Your task to perform on an android device: turn off smart reply in the gmail app Image 0: 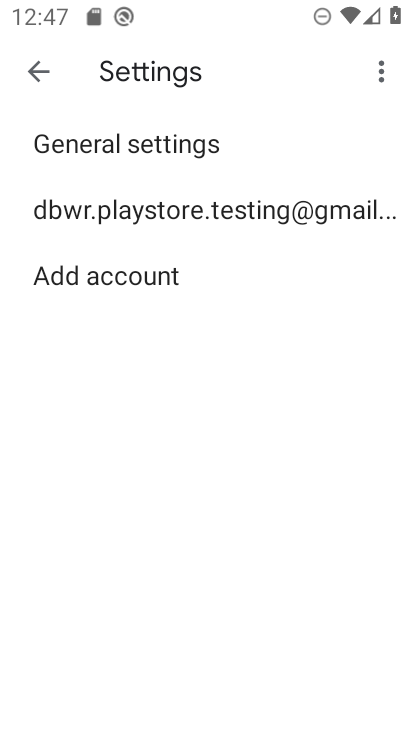
Step 0: press home button
Your task to perform on an android device: turn off smart reply in the gmail app Image 1: 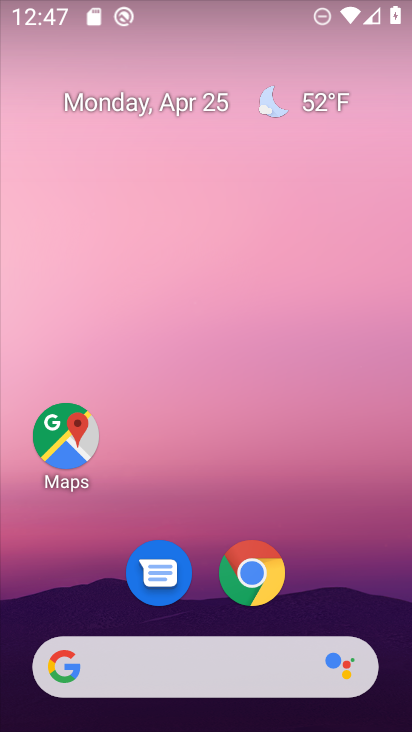
Step 1: drag from (231, 719) to (236, 133)
Your task to perform on an android device: turn off smart reply in the gmail app Image 2: 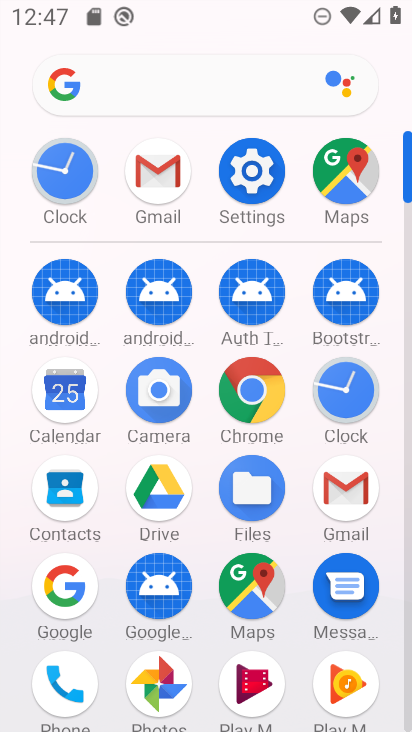
Step 2: click (346, 477)
Your task to perform on an android device: turn off smart reply in the gmail app Image 3: 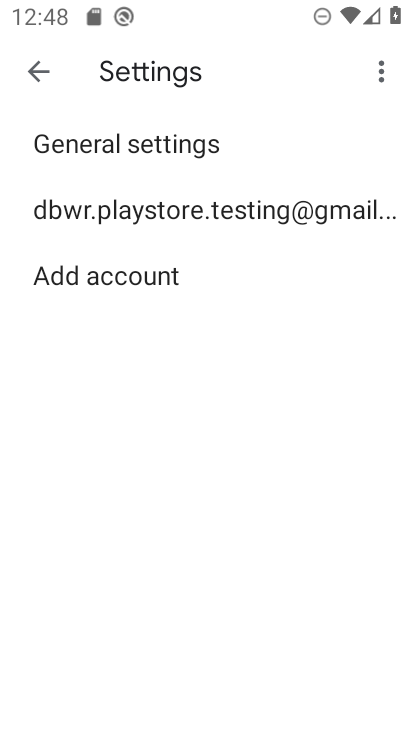
Step 3: click (212, 209)
Your task to perform on an android device: turn off smart reply in the gmail app Image 4: 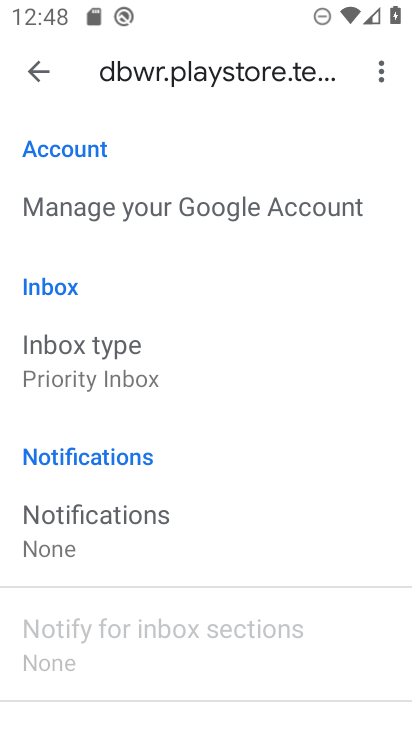
Step 4: drag from (226, 680) to (207, 312)
Your task to perform on an android device: turn off smart reply in the gmail app Image 5: 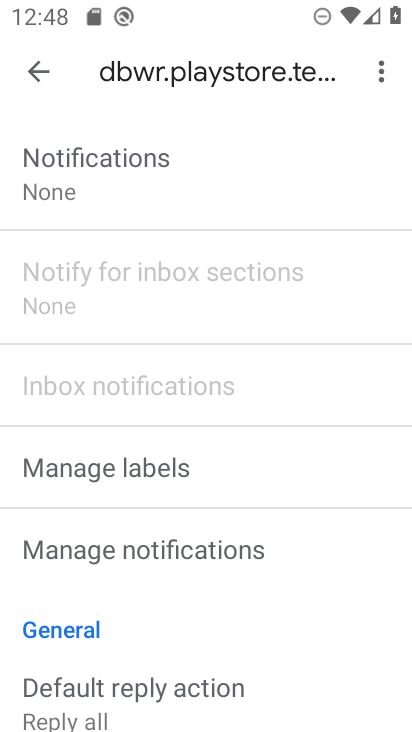
Step 5: drag from (209, 654) to (220, 291)
Your task to perform on an android device: turn off smart reply in the gmail app Image 6: 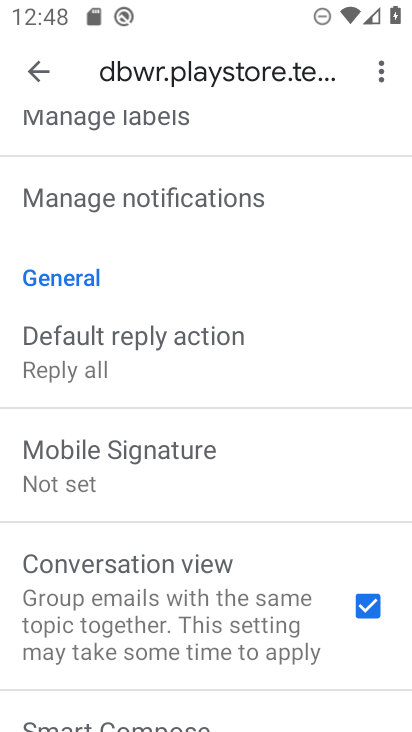
Step 6: drag from (202, 698) to (231, 245)
Your task to perform on an android device: turn off smart reply in the gmail app Image 7: 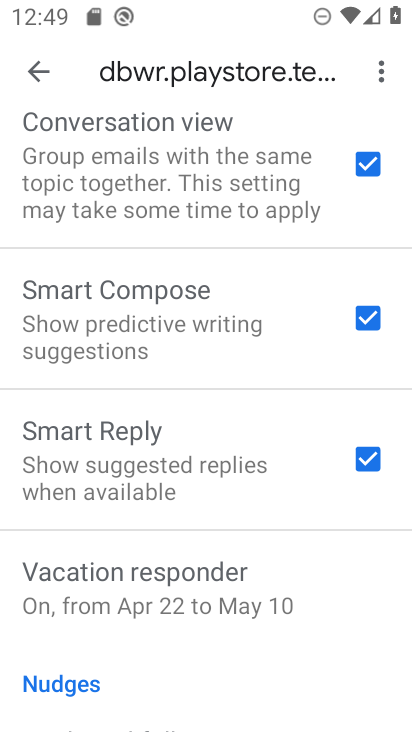
Step 7: click (362, 455)
Your task to perform on an android device: turn off smart reply in the gmail app Image 8: 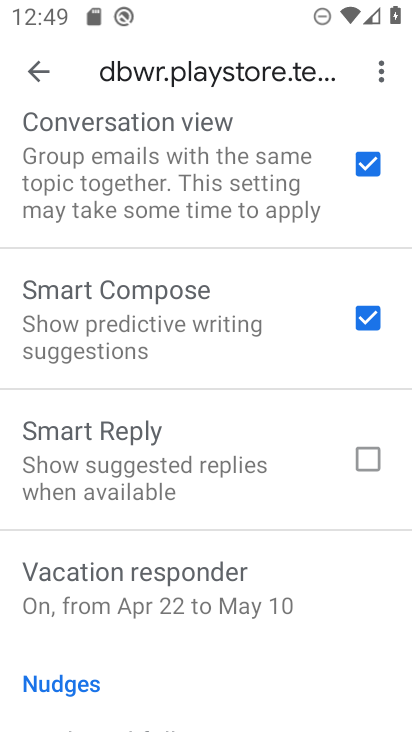
Step 8: task complete